Your task to perform on an android device: Open Google Chrome Image 0: 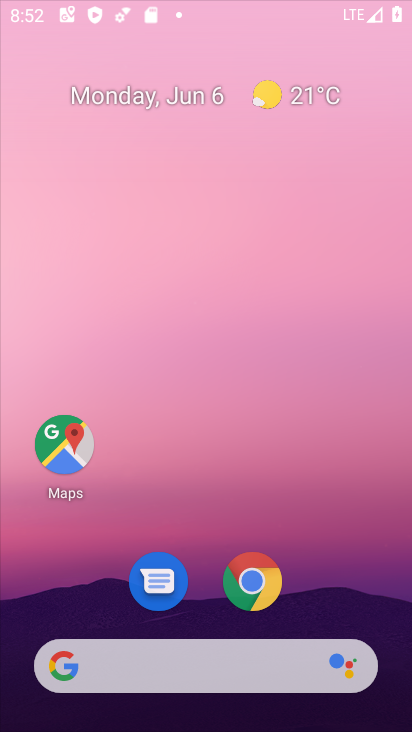
Step 0: click (355, 8)
Your task to perform on an android device: Open Google Chrome Image 1: 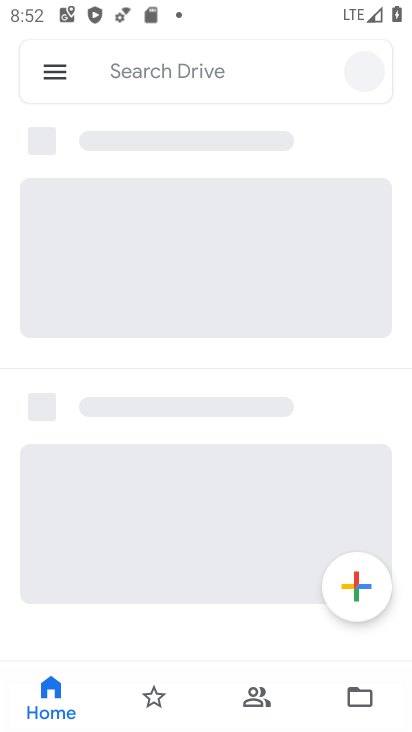
Step 1: press home button
Your task to perform on an android device: Open Google Chrome Image 2: 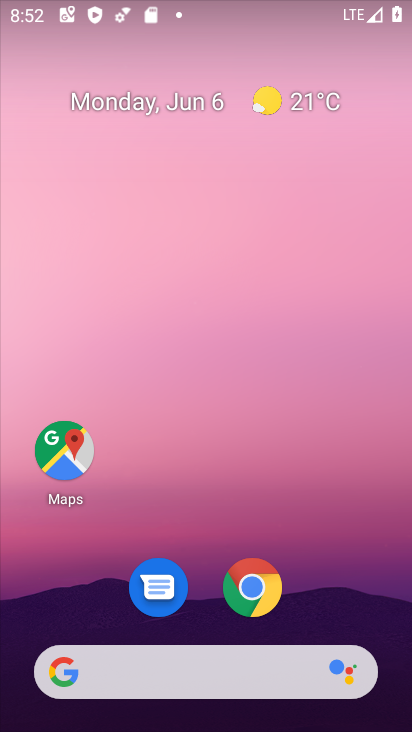
Step 2: click (275, 588)
Your task to perform on an android device: Open Google Chrome Image 3: 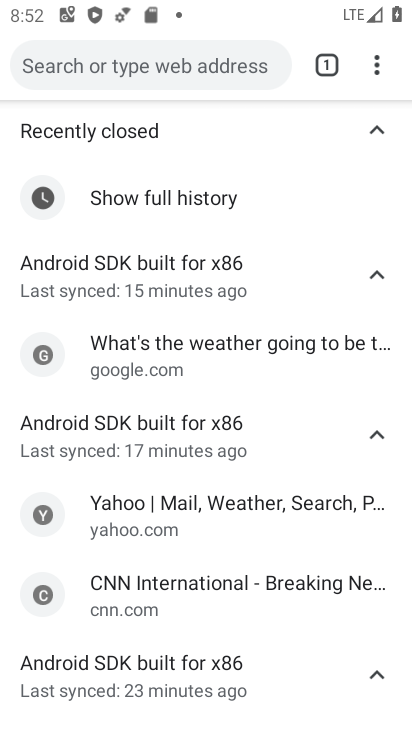
Step 3: click (372, 73)
Your task to perform on an android device: Open Google Chrome Image 4: 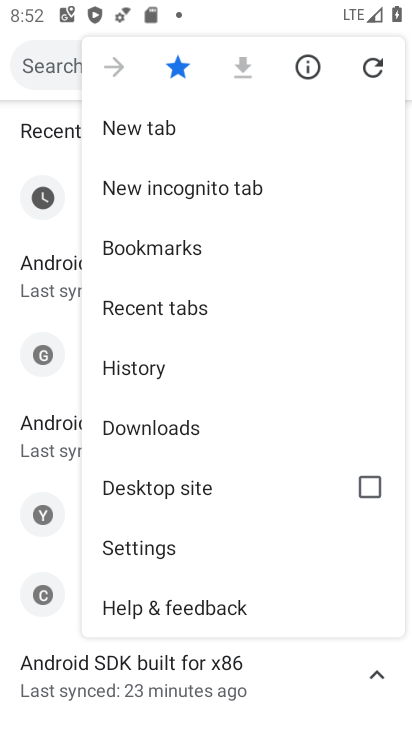
Step 4: click (240, 124)
Your task to perform on an android device: Open Google Chrome Image 5: 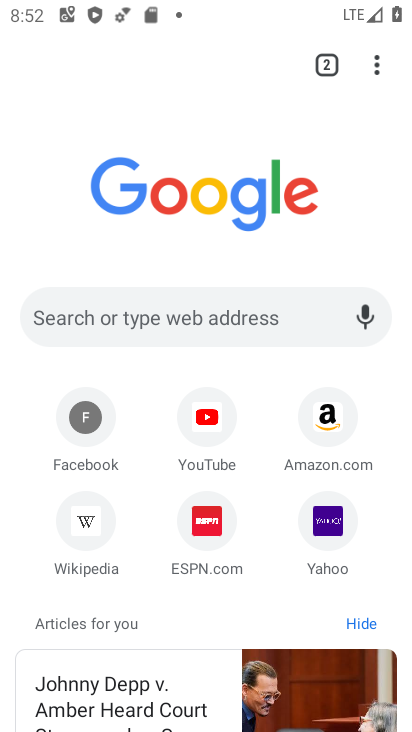
Step 5: task complete